Your task to perform on an android device: find which apps use the phone's location Image 0: 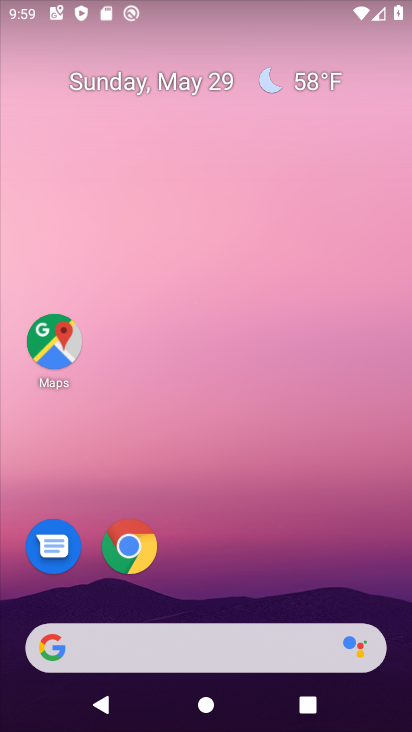
Step 0: drag from (344, 596) to (289, 90)
Your task to perform on an android device: find which apps use the phone's location Image 1: 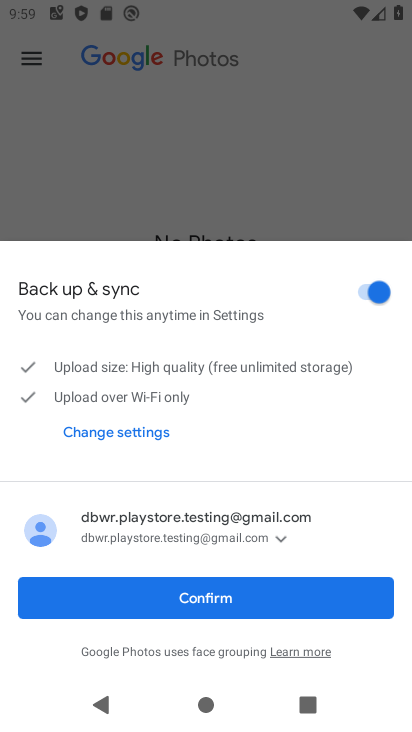
Step 1: press home button
Your task to perform on an android device: find which apps use the phone's location Image 2: 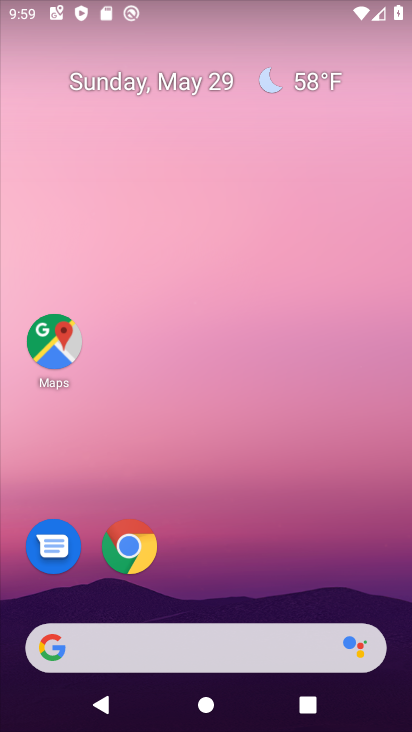
Step 2: drag from (300, 314) to (299, 267)
Your task to perform on an android device: find which apps use the phone's location Image 3: 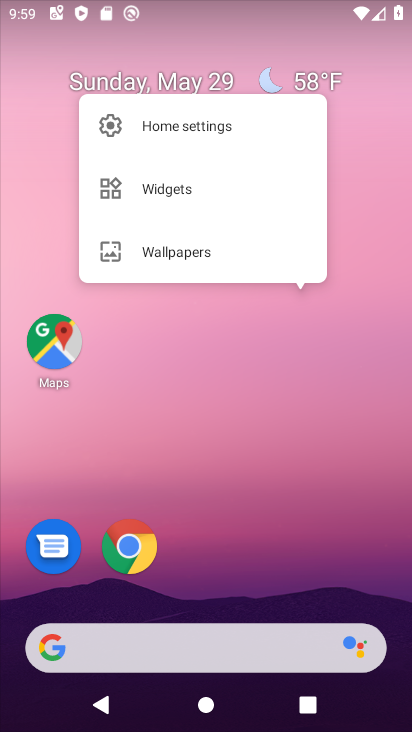
Step 3: click (299, 267)
Your task to perform on an android device: find which apps use the phone's location Image 4: 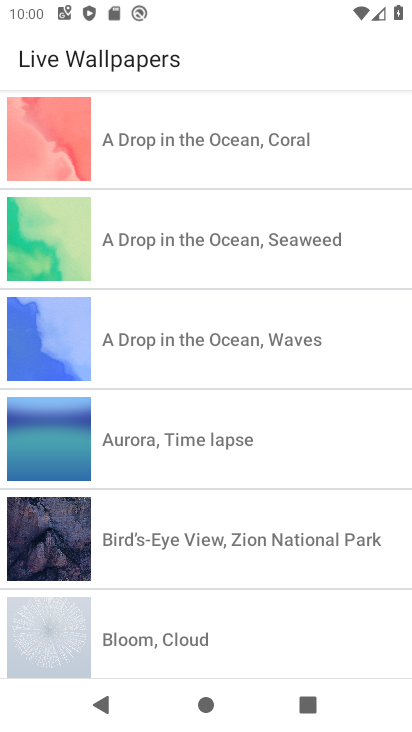
Step 4: press back button
Your task to perform on an android device: find which apps use the phone's location Image 5: 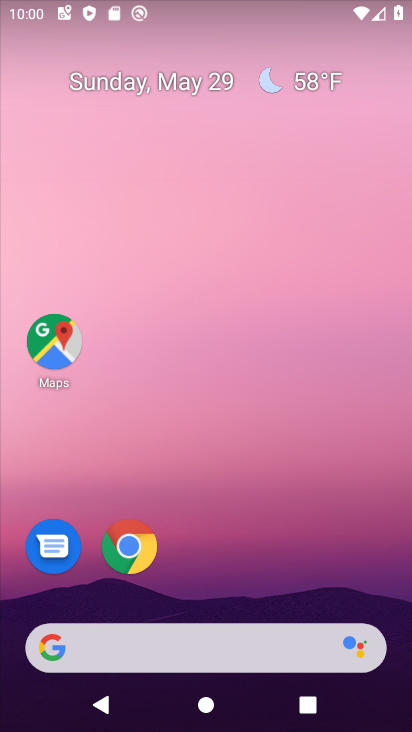
Step 5: drag from (306, 579) to (295, 127)
Your task to perform on an android device: find which apps use the phone's location Image 6: 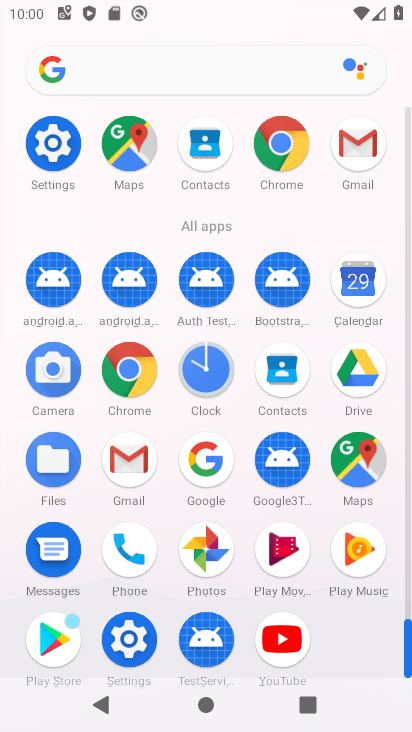
Step 6: click (53, 145)
Your task to perform on an android device: find which apps use the phone's location Image 7: 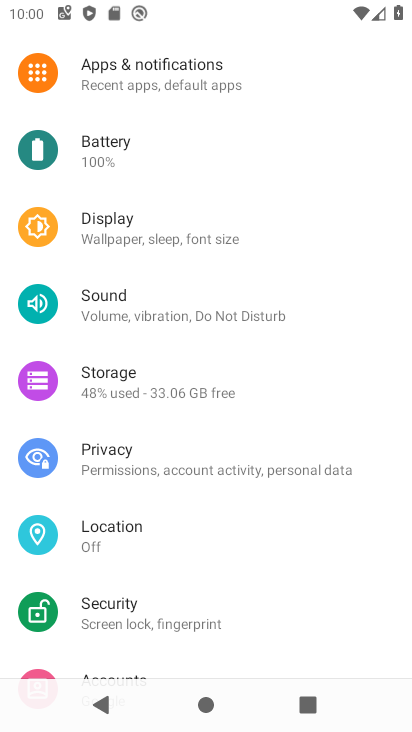
Step 7: click (225, 533)
Your task to perform on an android device: find which apps use the phone's location Image 8: 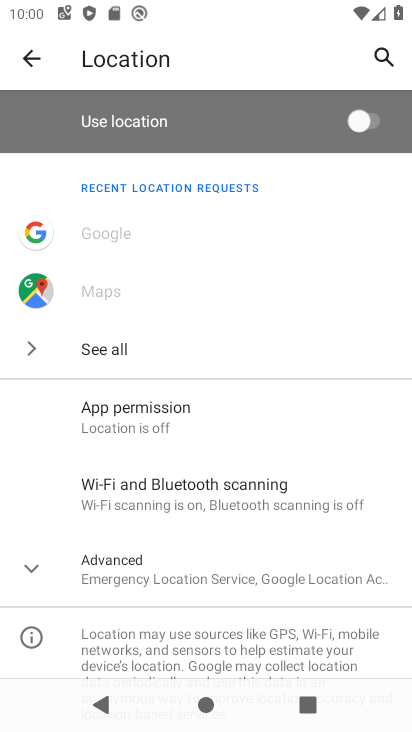
Step 8: click (207, 417)
Your task to perform on an android device: find which apps use the phone's location Image 9: 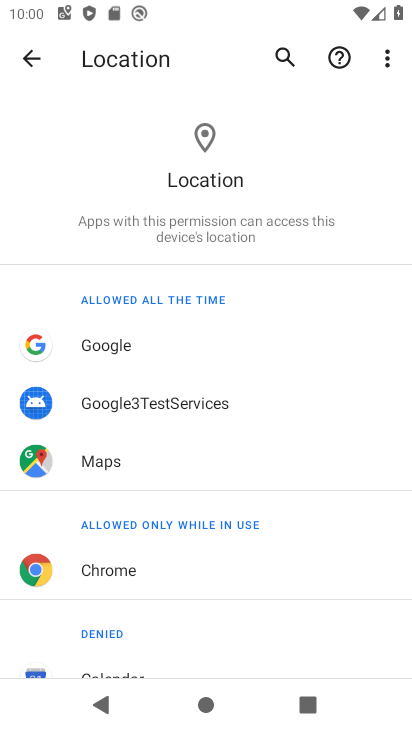
Step 9: drag from (208, 416) to (168, 396)
Your task to perform on an android device: find which apps use the phone's location Image 10: 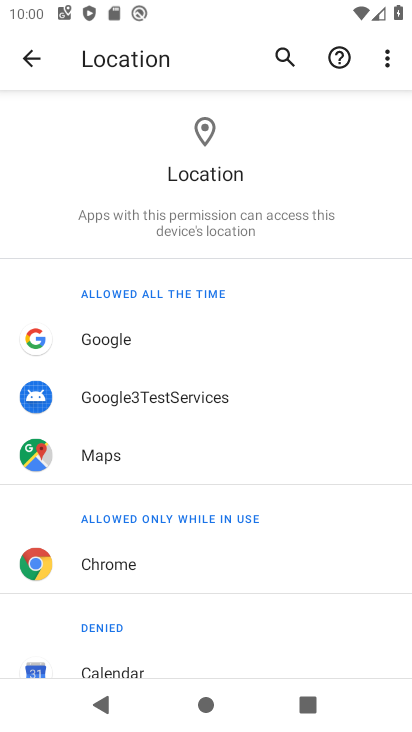
Step 10: click (167, 396)
Your task to perform on an android device: find which apps use the phone's location Image 11: 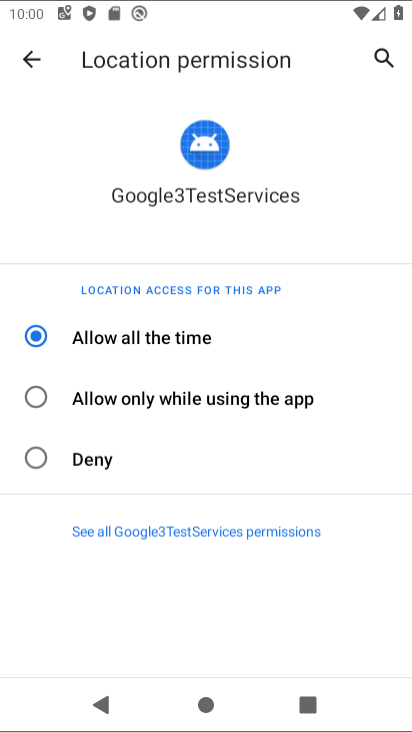
Step 11: click (167, 396)
Your task to perform on an android device: find which apps use the phone's location Image 12: 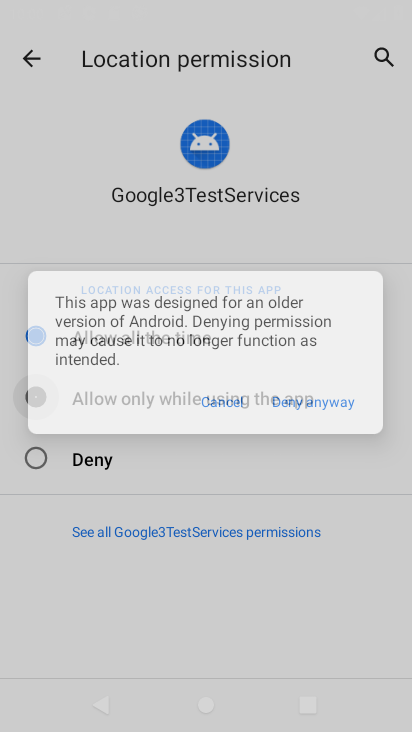
Step 12: click (167, 396)
Your task to perform on an android device: find which apps use the phone's location Image 13: 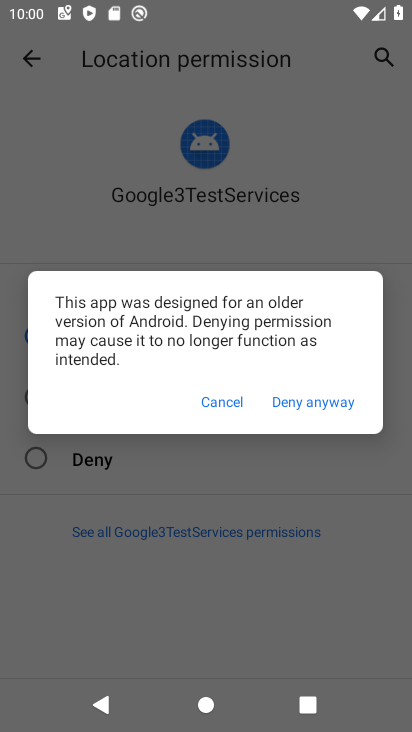
Step 13: click (167, 396)
Your task to perform on an android device: find which apps use the phone's location Image 14: 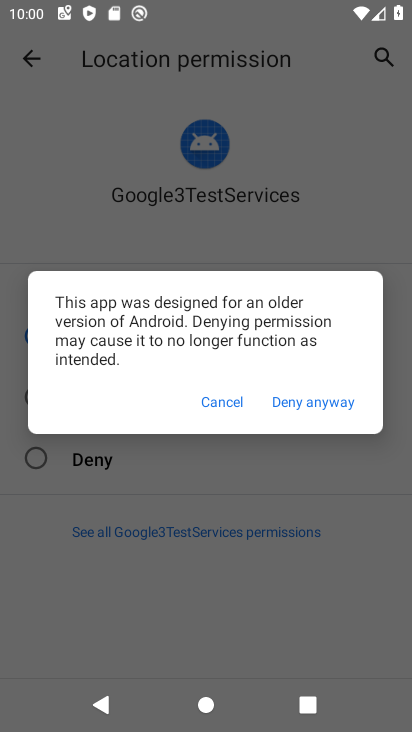
Step 14: click (167, 396)
Your task to perform on an android device: find which apps use the phone's location Image 15: 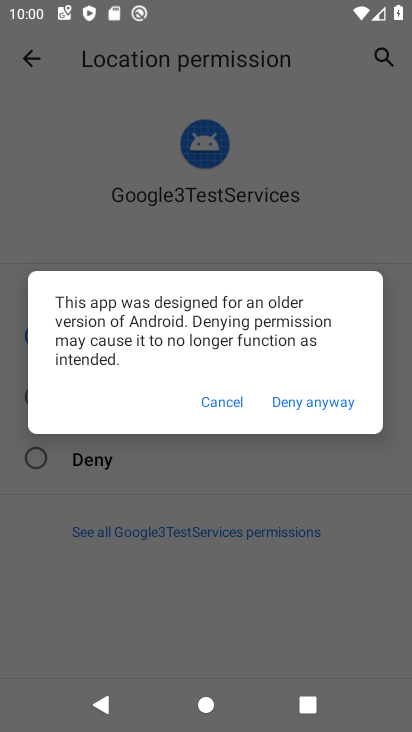
Step 15: click (167, 396)
Your task to perform on an android device: find which apps use the phone's location Image 16: 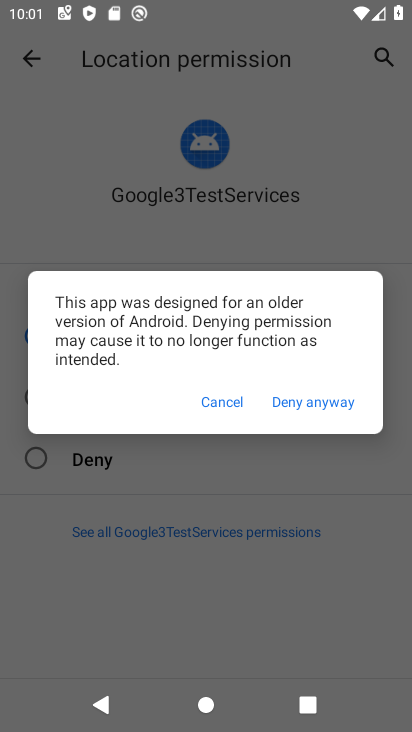
Step 16: click (221, 400)
Your task to perform on an android device: find which apps use the phone's location Image 17: 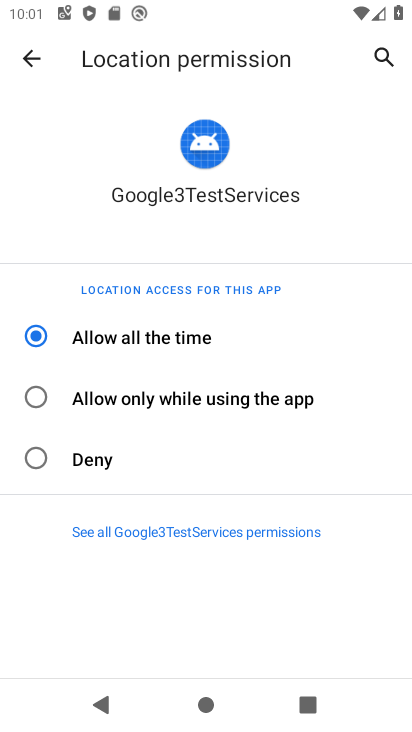
Step 17: task complete